Your task to perform on an android device: Do I have any events tomorrow? Image 0: 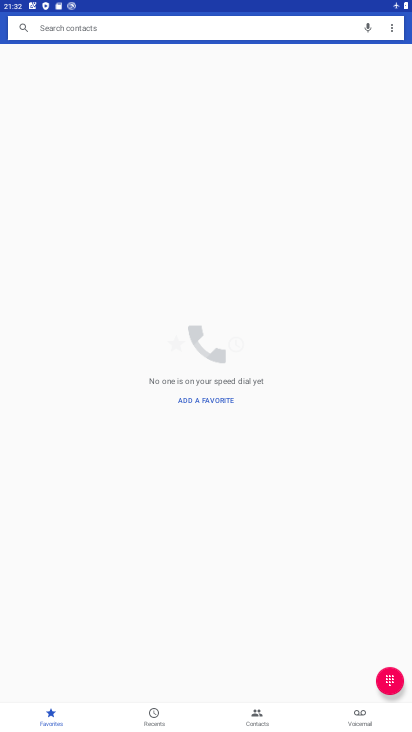
Step 0: drag from (230, 622) to (238, 326)
Your task to perform on an android device: Do I have any events tomorrow? Image 1: 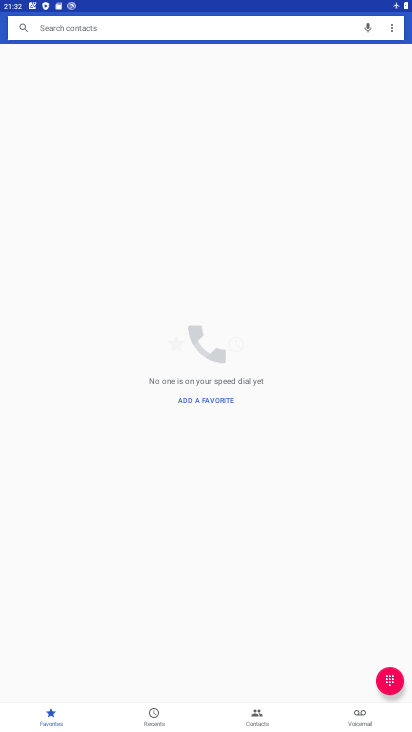
Step 1: press home button
Your task to perform on an android device: Do I have any events tomorrow? Image 2: 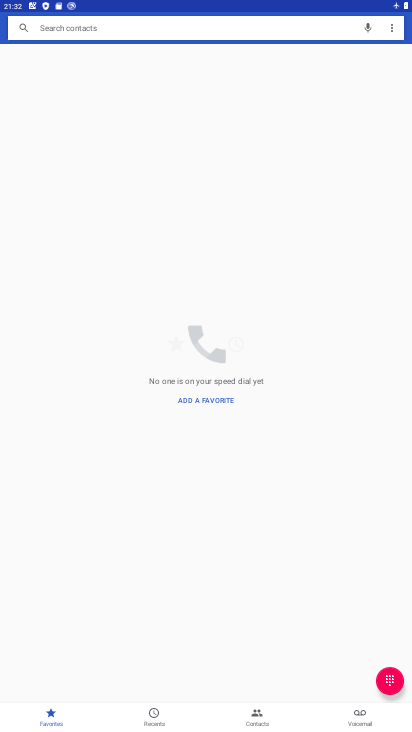
Step 2: press home button
Your task to perform on an android device: Do I have any events tomorrow? Image 3: 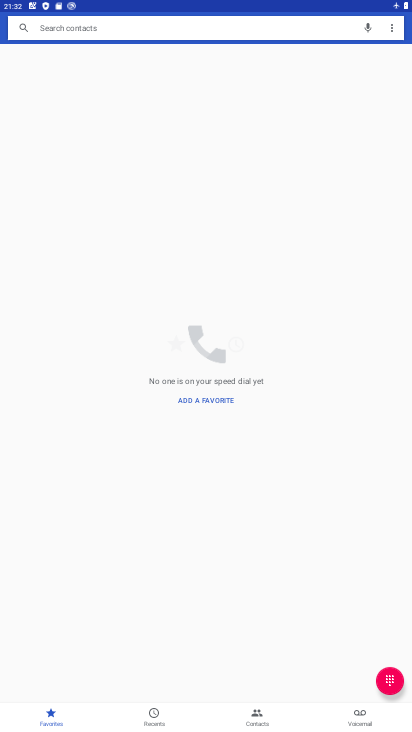
Step 3: drag from (201, 426) to (201, 303)
Your task to perform on an android device: Do I have any events tomorrow? Image 4: 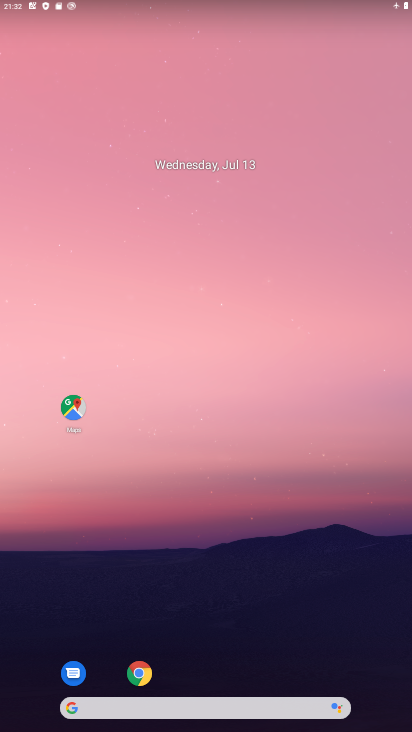
Step 4: drag from (188, 643) to (267, 118)
Your task to perform on an android device: Do I have any events tomorrow? Image 5: 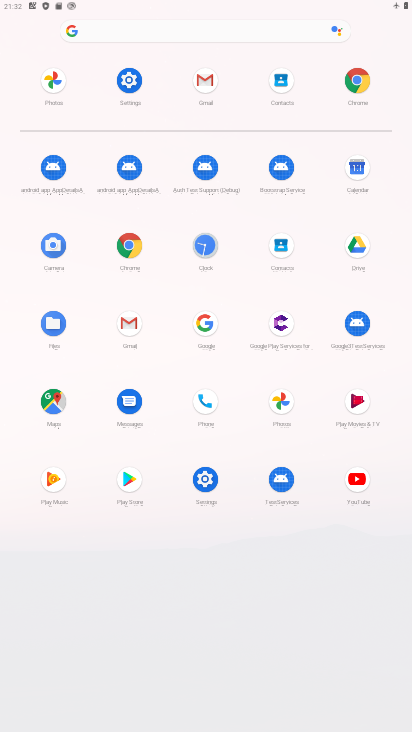
Step 5: click (352, 167)
Your task to perform on an android device: Do I have any events tomorrow? Image 6: 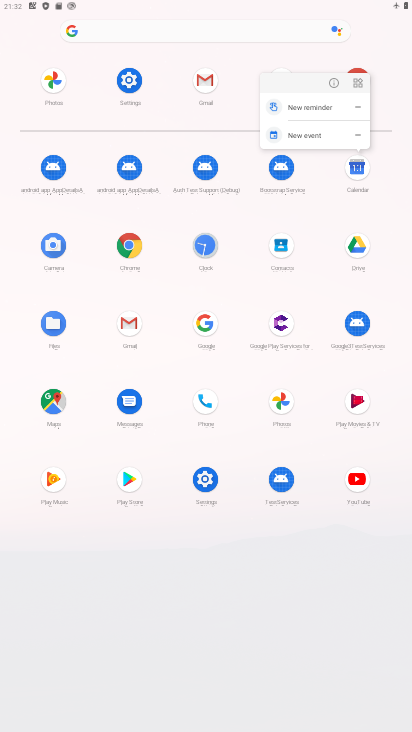
Step 6: click (334, 79)
Your task to perform on an android device: Do I have any events tomorrow? Image 7: 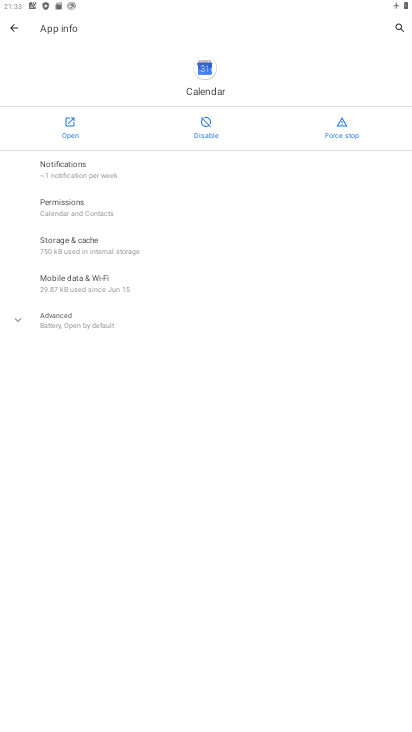
Step 7: drag from (145, 591) to (177, 289)
Your task to perform on an android device: Do I have any events tomorrow? Image 8: 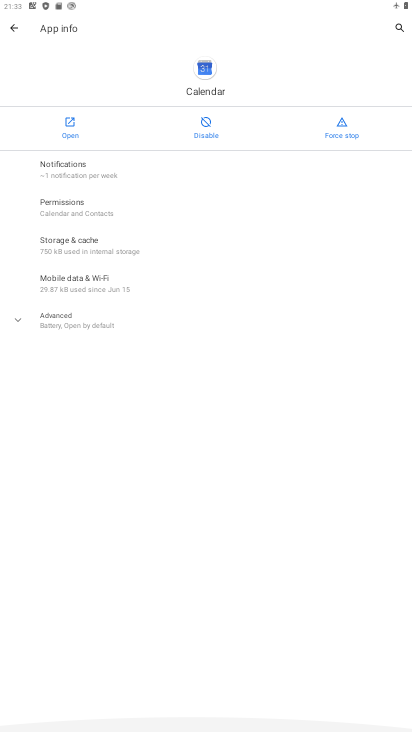
Step 8: click (64, 122)
Your task to perform on an android device: Do I have any events tomorrow? Image 9: 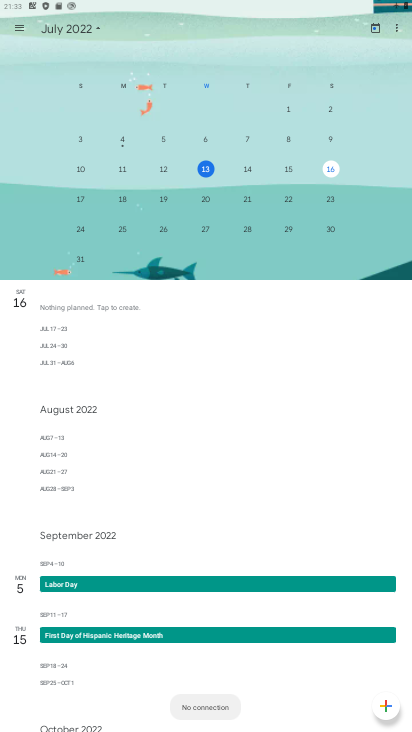
Step 9: drag from (186, 590) to (199, 406)
Your task to perform on an android device: Do I have any events tomorrow? Image 10: 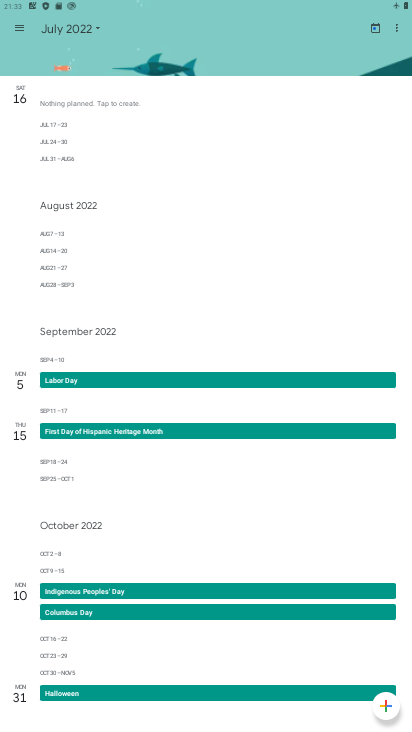
Step 10: drag from (259, 535) to (325, 185)
Your task to perform on an android device: Do I have any events tomorrow? Image 11: 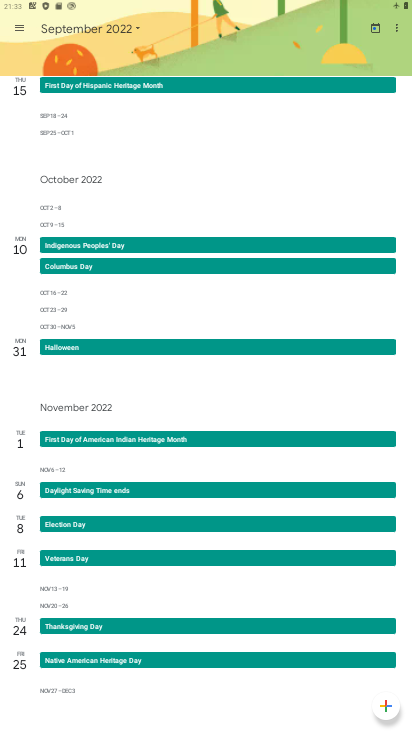
Step 11: drag from (214, 582) to (221, 254)
Your task to perform on an android device: Do I have any events tomorrow? Image 12: 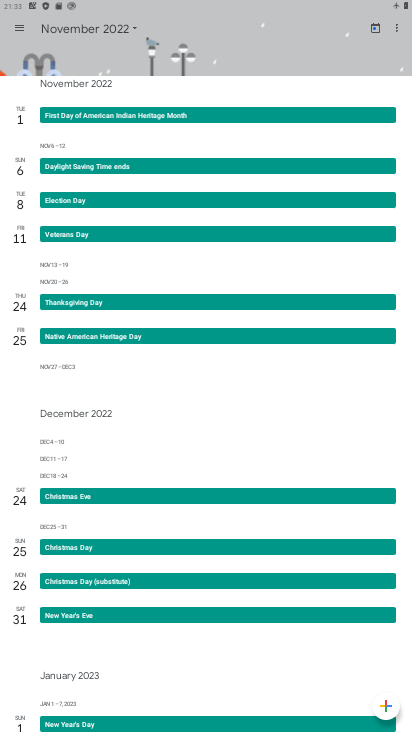
Step 12: drag from (247, 577) to (262, 347)
Your task to perform on an android device: Do I have any events tomorrow? Image 13: 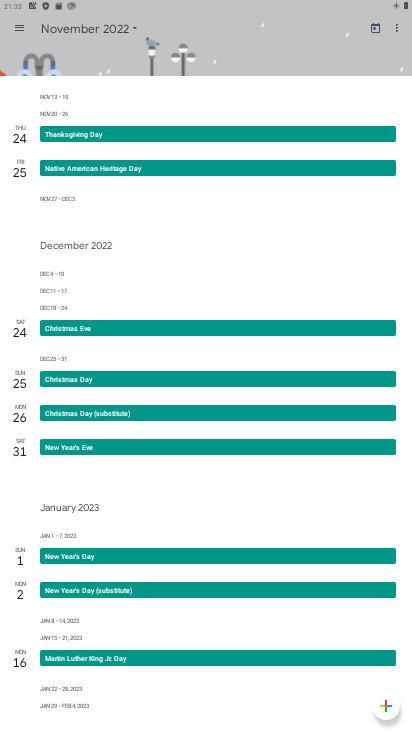
Step 13: drag from (265, 213) to (402, 645)
Your task to perform on an android device: Do I have any events tomorrow? Image 14: 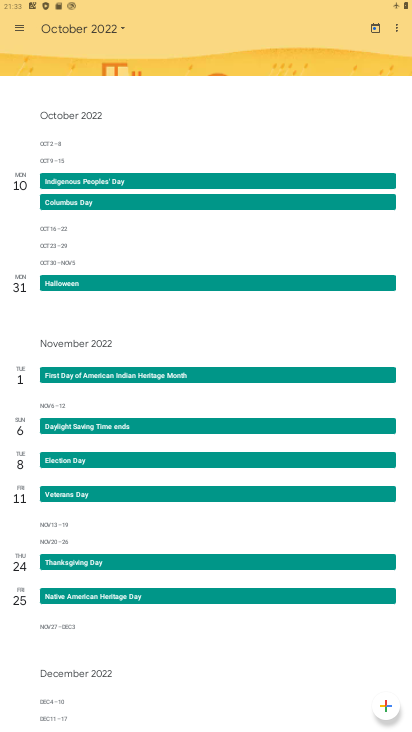
Step 14: click (88, 30)
Your task to perform on an android device: Do I have any events tomorrow? Image 15: 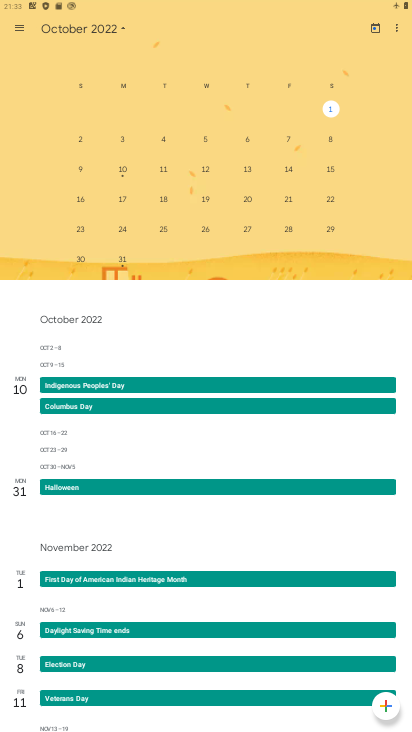
Step 15: drag from (90, 185) to (411, 180)
Your task to perform on an android device: Do I have any events tomorrow? Image 16: 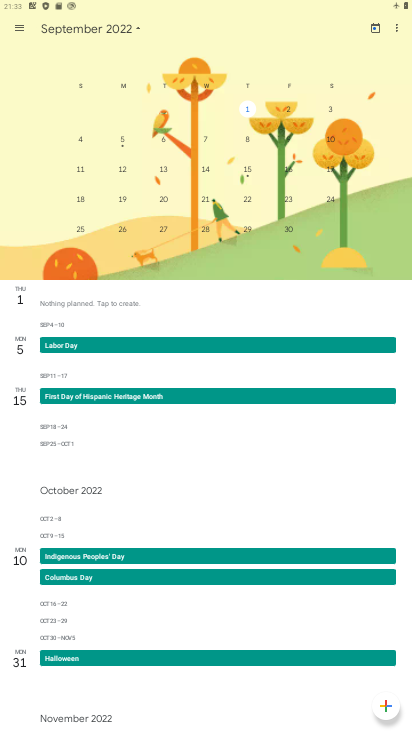
Step 16: click (373, 24)
Your task to perform on an android device: Do I have any events tomorrow? Image 17: 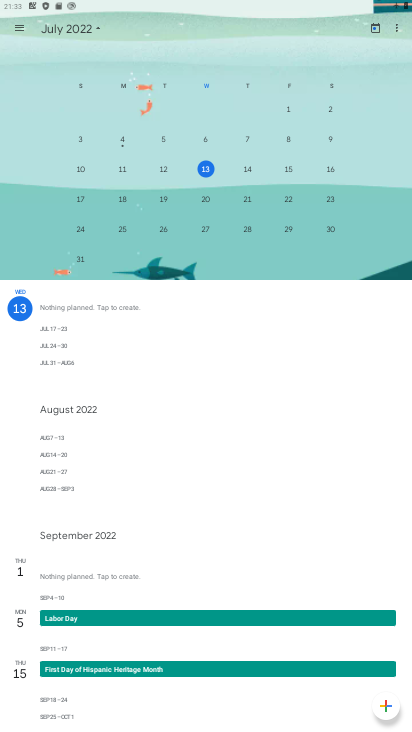
Step 17: click (238, 167)
Your task to perform on an android device: Do I have any events tomorrow? Image 18: 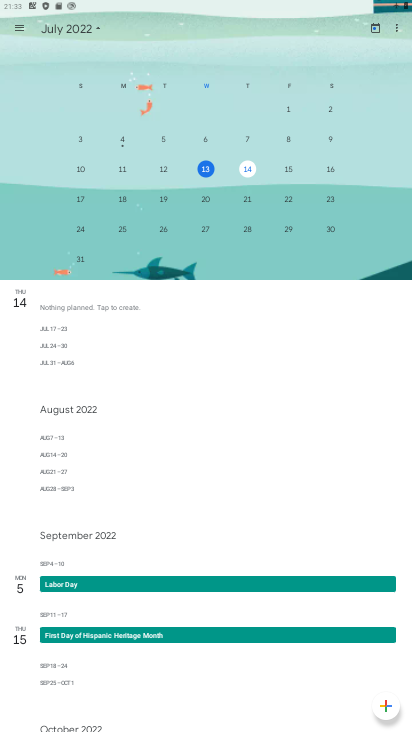
Step 18: task complete